Your task to perform on an android device: empty trash in the gmail app Image 0: 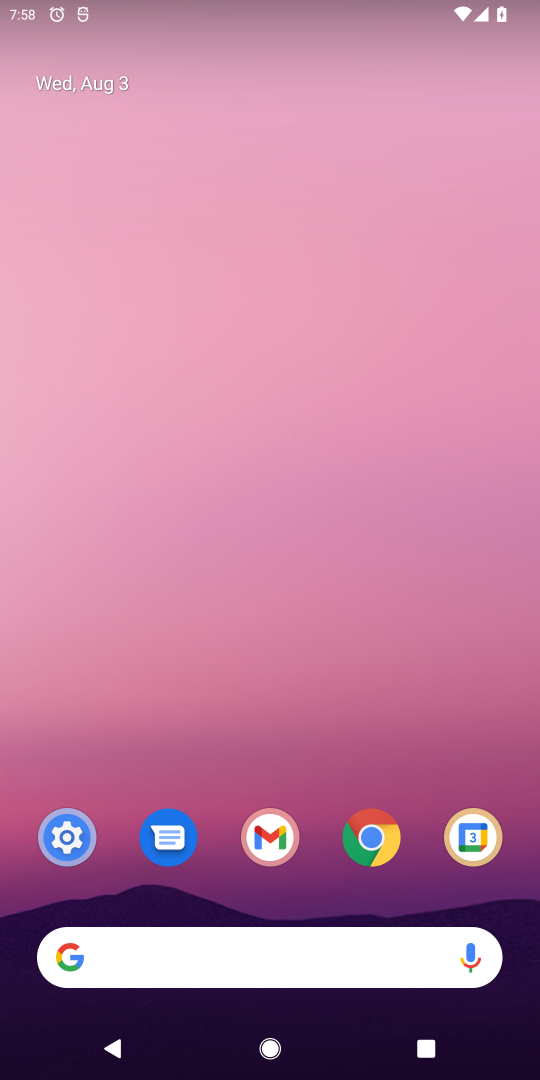
Step 0: press home button
Your task to perform on an android device: empty trash in the gmail app Image 1: 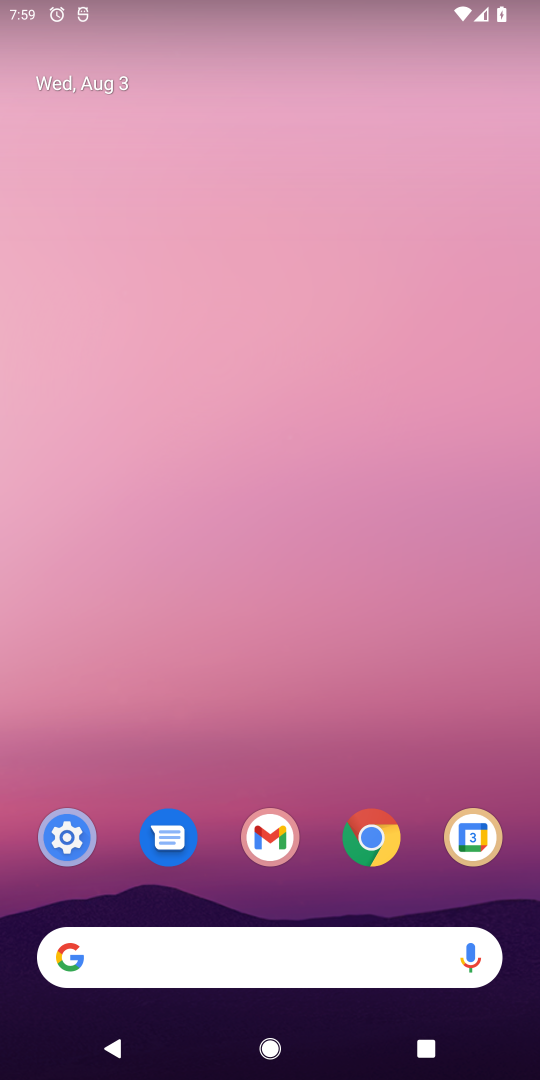
Step 1: click (263, 833)
Your task to perform on an android device: empty trash in the gmail app Image 2: 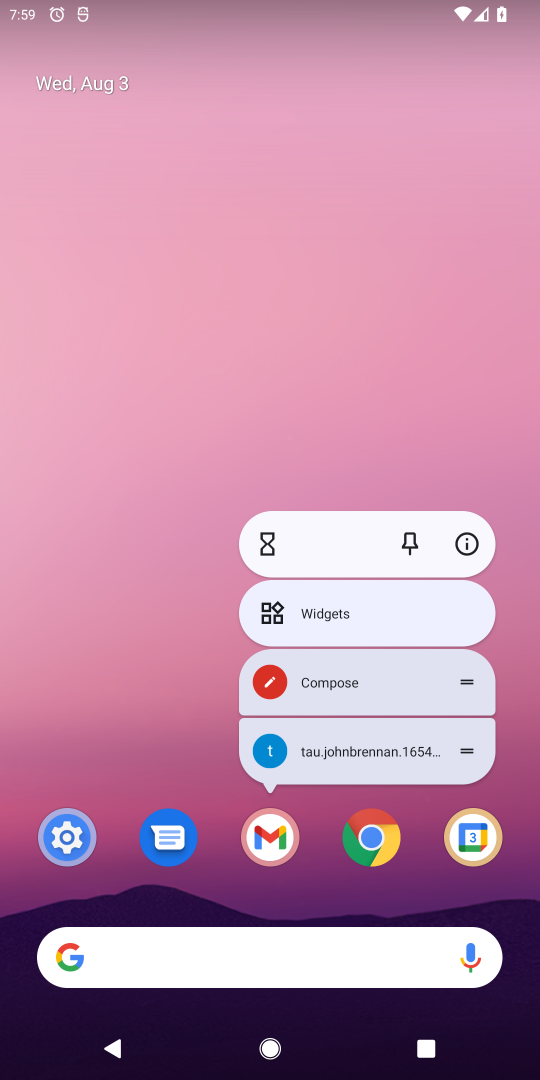
Step 2: click (272, 840)
Your task to perform on an android device: empty trash in the gmail app Image 3: 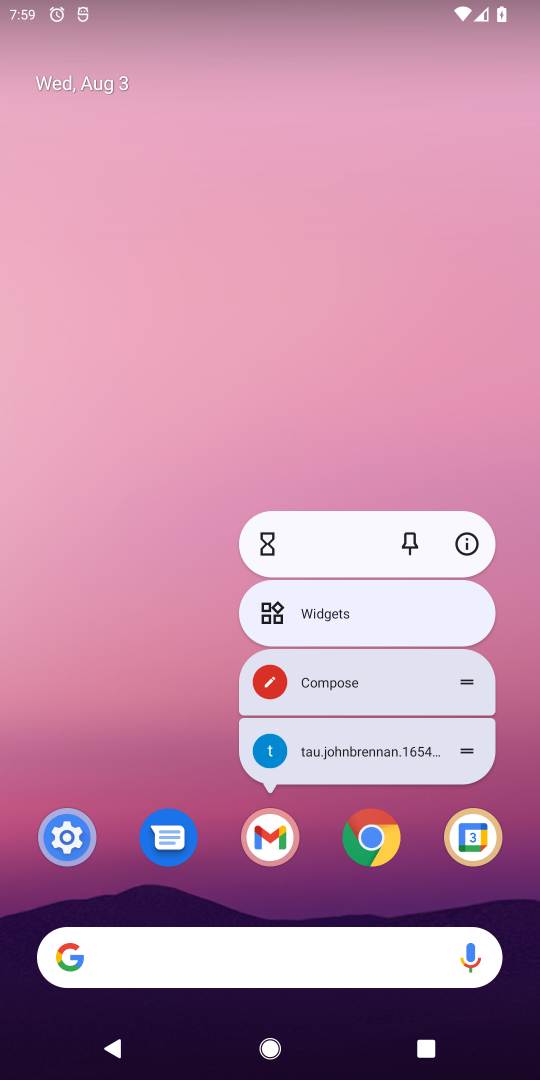
Step 3: click (272, 840)
Your task to perform on an android device: empty trash in the gmail app Image 4: 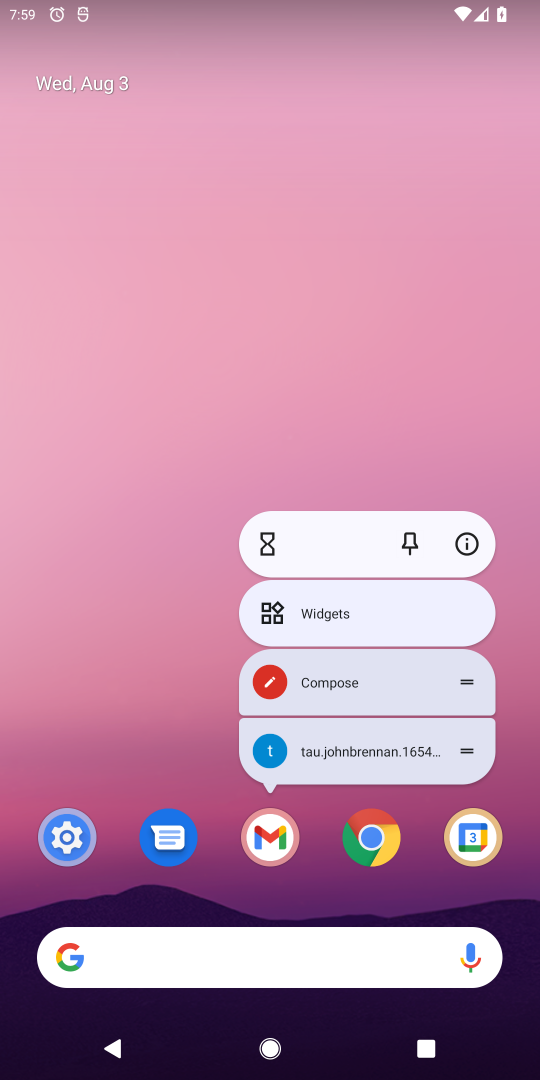
Step 4: click (268, 849)
Your task to perform on an android device: empty trash in the gmail app Image 5: 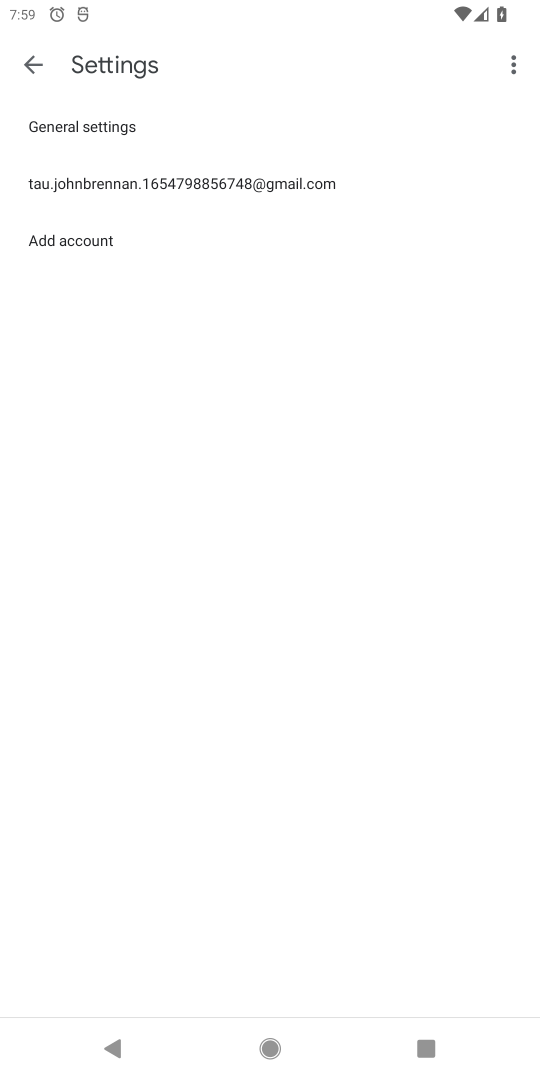
Step 5: click (33, 63)
Your task to perform on an android device: empty trash in the gmail app Image 6: 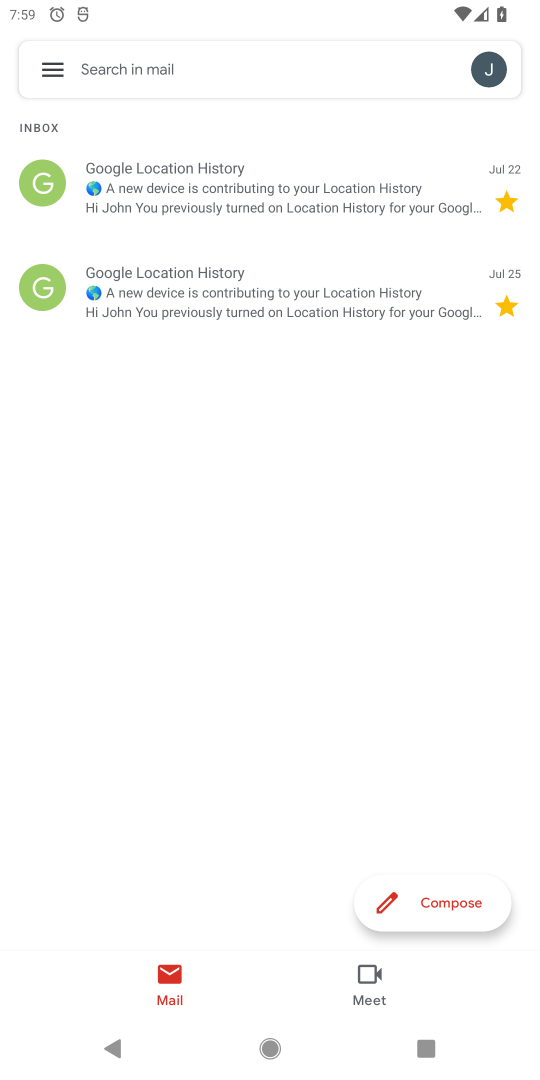
Step 6: click (46, 73)
Your task to perform on an android device: empty trash in the gmail app Image 7: 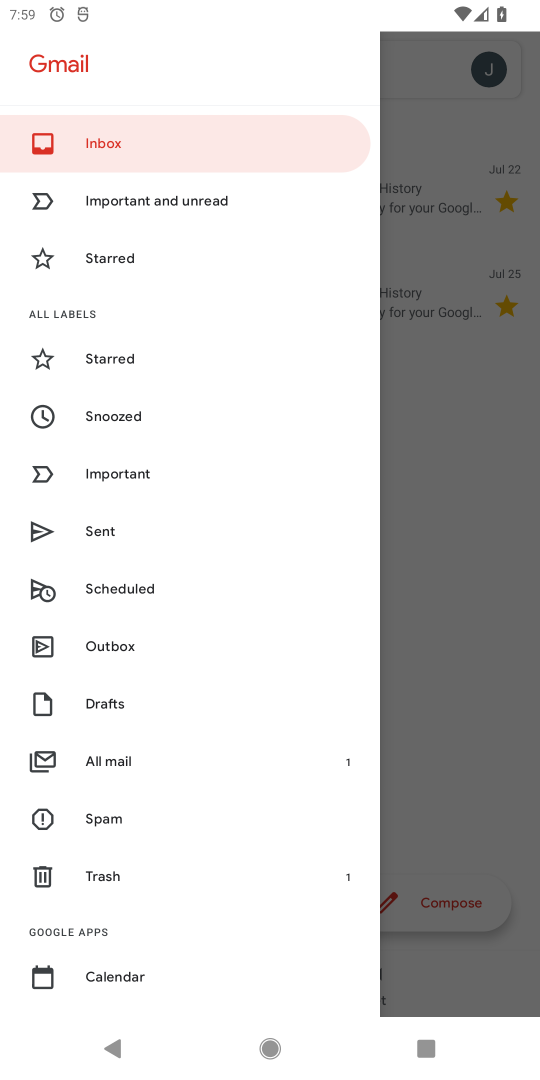
Step 7: click (101, 880)
Your task to perform on an android device: empty trash in the gmail app Image 8: 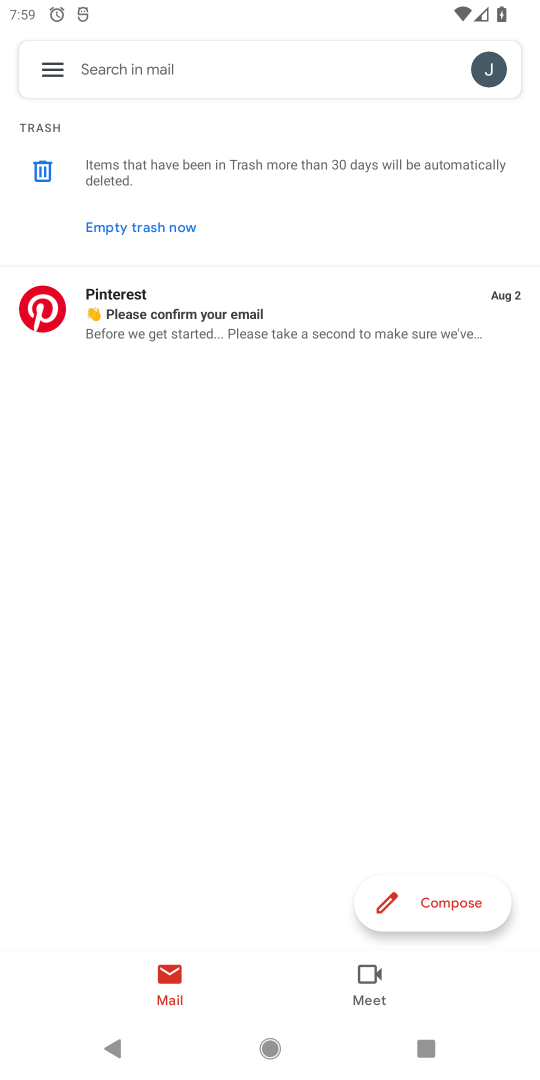
Step 8: click (128, 229)
Your task to perform on an android device: empty trash in the gmail app Image 9: 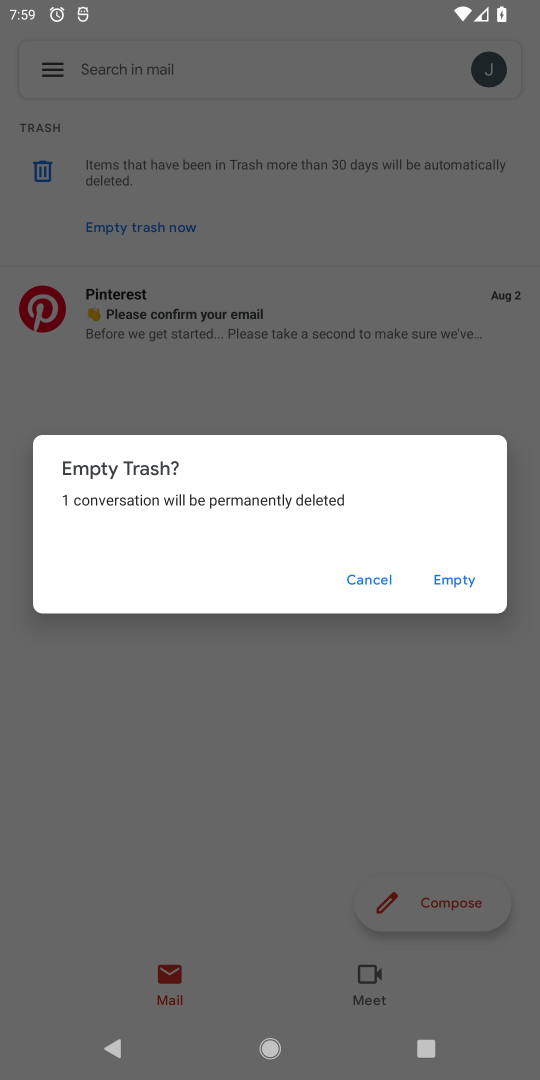
Step 9: click (458, 577)
Your task to perform on an android device: empty trash in the gmail app Image 10: 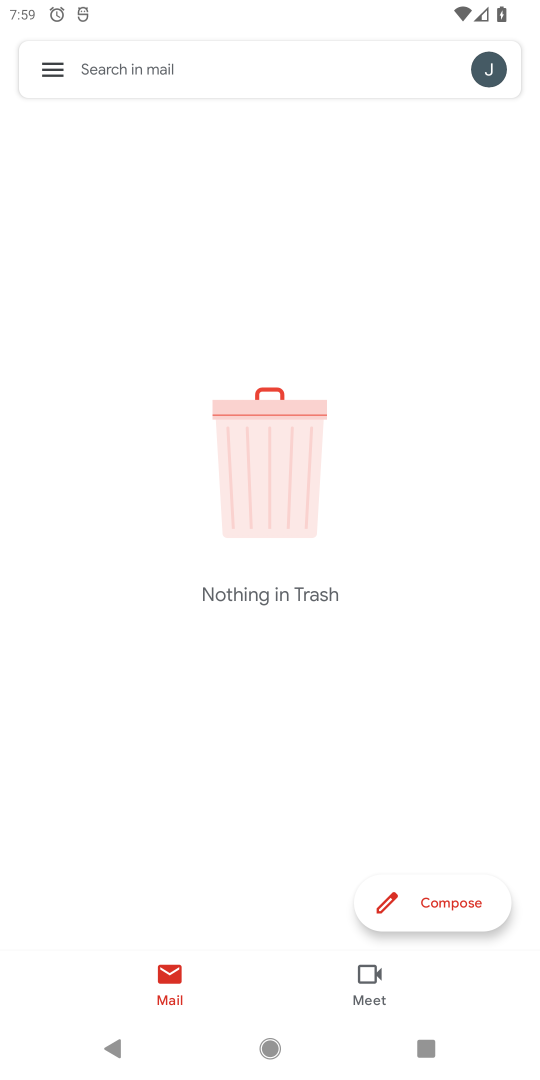
Step 10: task complete